Your task to perform on an android device: Search for the best rated mechanical keyboard on Amazon. Image 0: 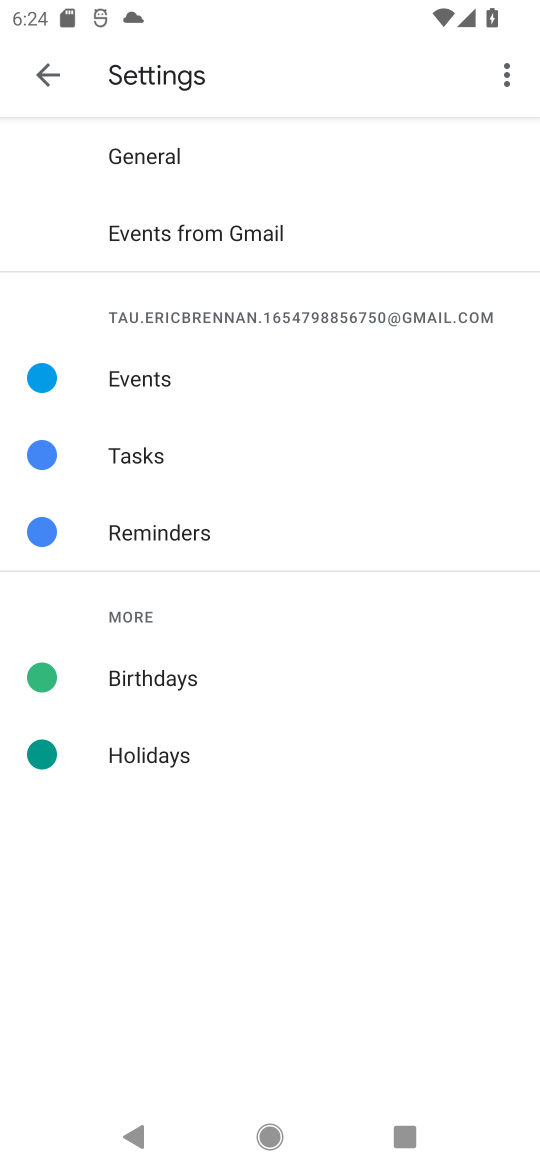
Step 0: press home button
Your task to perform on an android device: Search for the best rated mechanical keyboard on Amazon. Image 1: 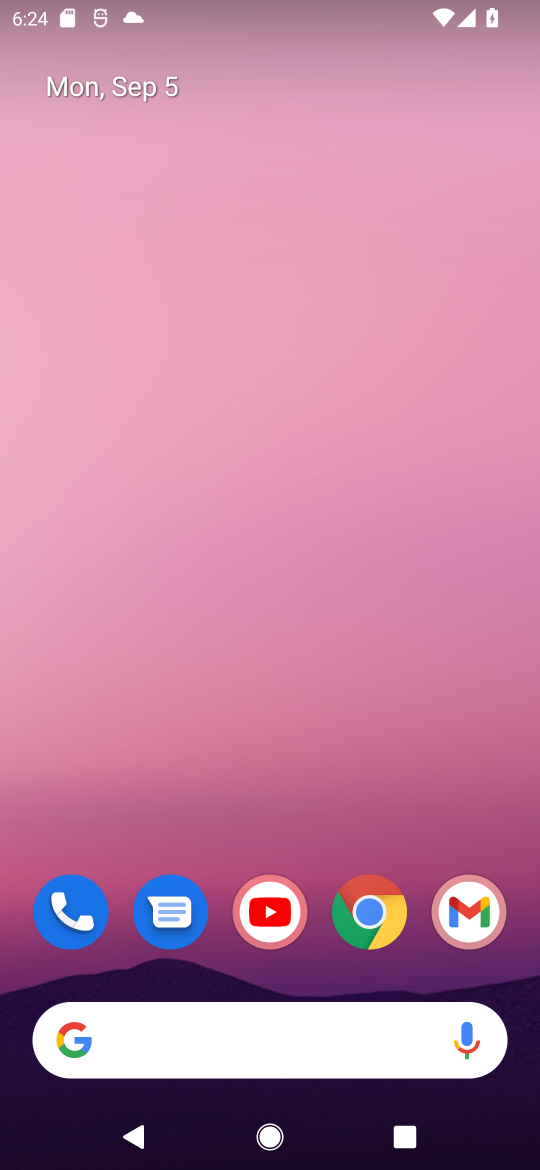
Step 1: click (363, 913)
Your task to perform on an android device: Search for the best rated mechanical keyboard on Amazon. Image 2: 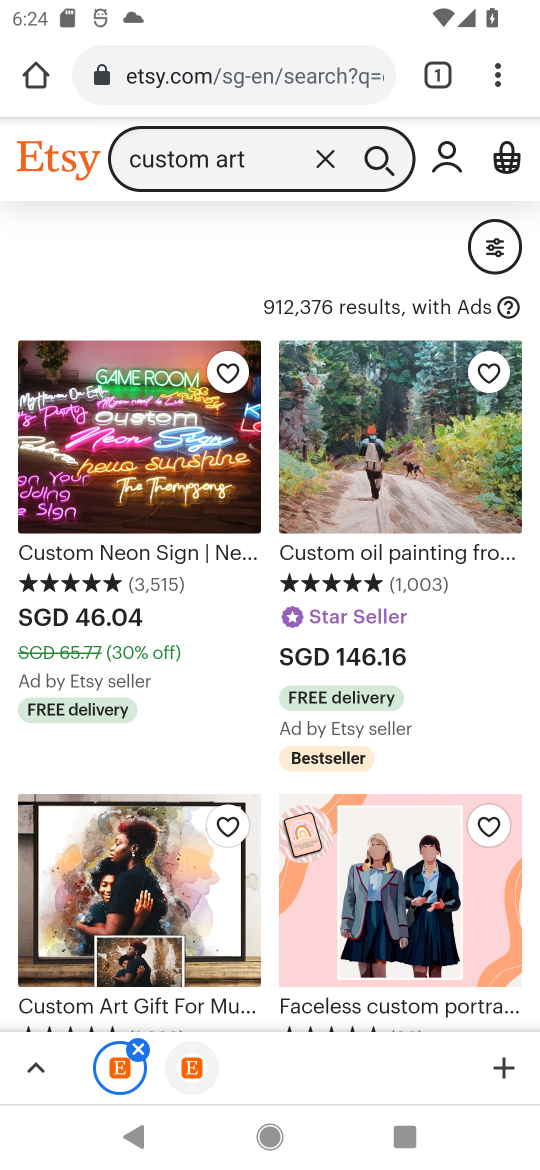
Step 2: click (241, 83)
Your task to perform on an android device: Search for the best rated mechanical keyboard on Amazon. Image 3: 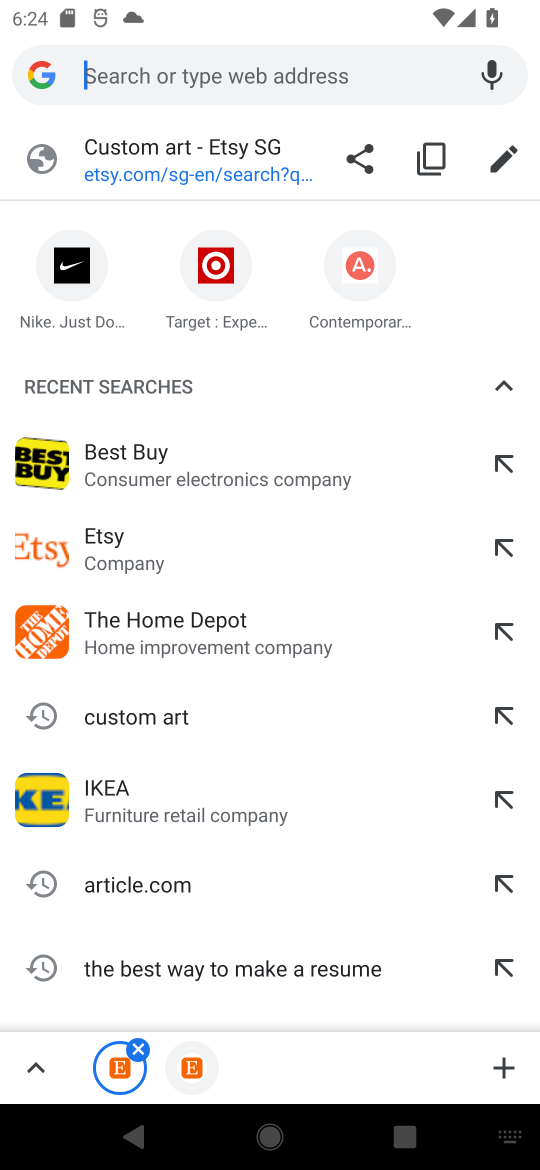
Step 3: type "Amazon"
Your task to perform on an android device: Search for the best rated mechanical keyboard on Amazon. Image 4: 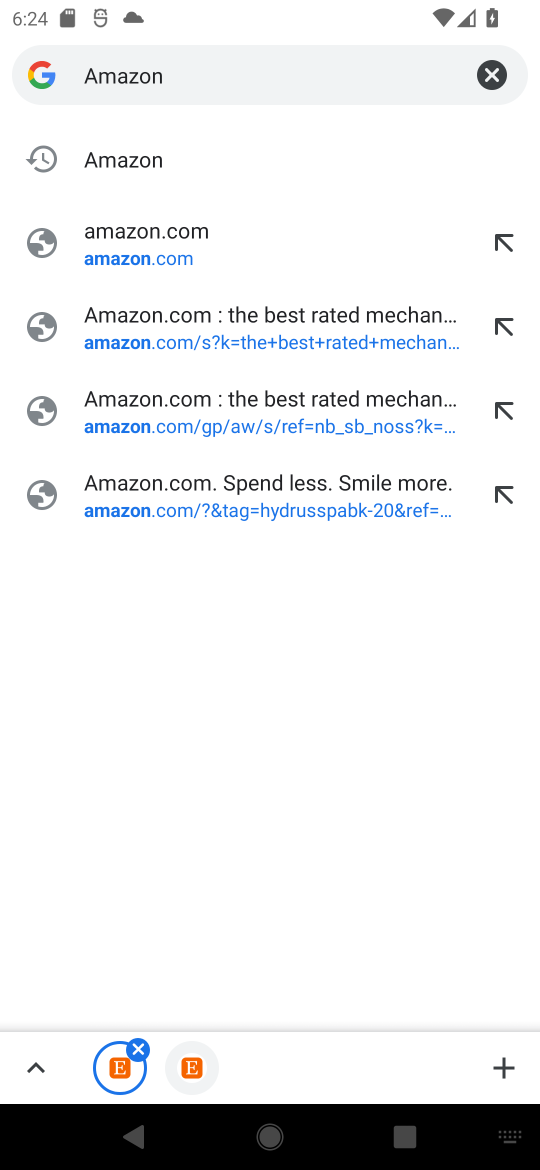
Step 4: click (219, 228)
Your task to perform on an android device: Search for the best rated mechanical keyboard on Amazon. Image 5: 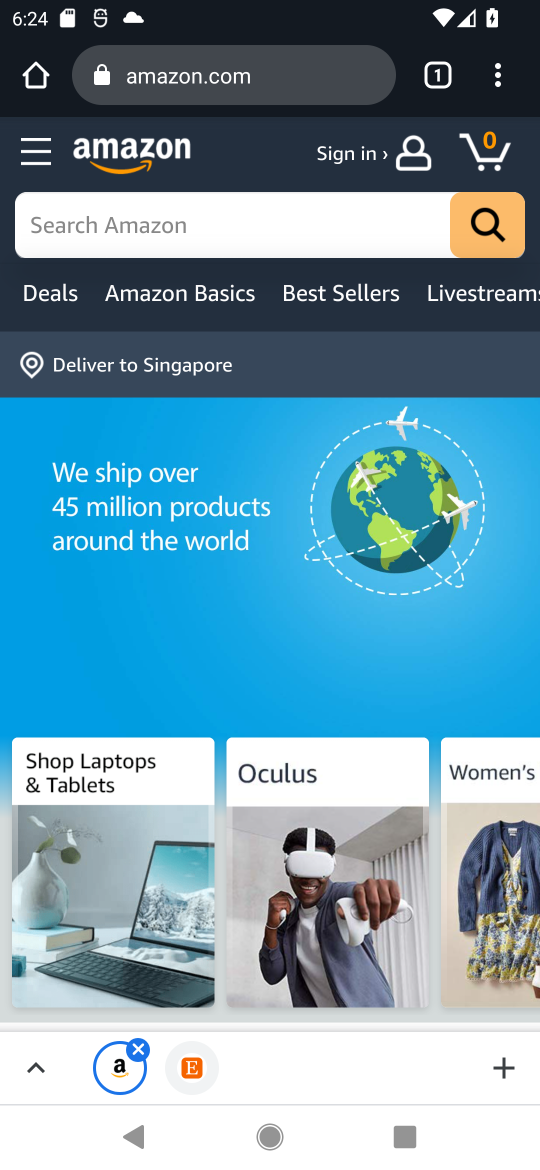
Step 5: click (211, 208)
Your task to perform on an android device: Search for the best rated mechanical keyboard on Amazon. Image 6: 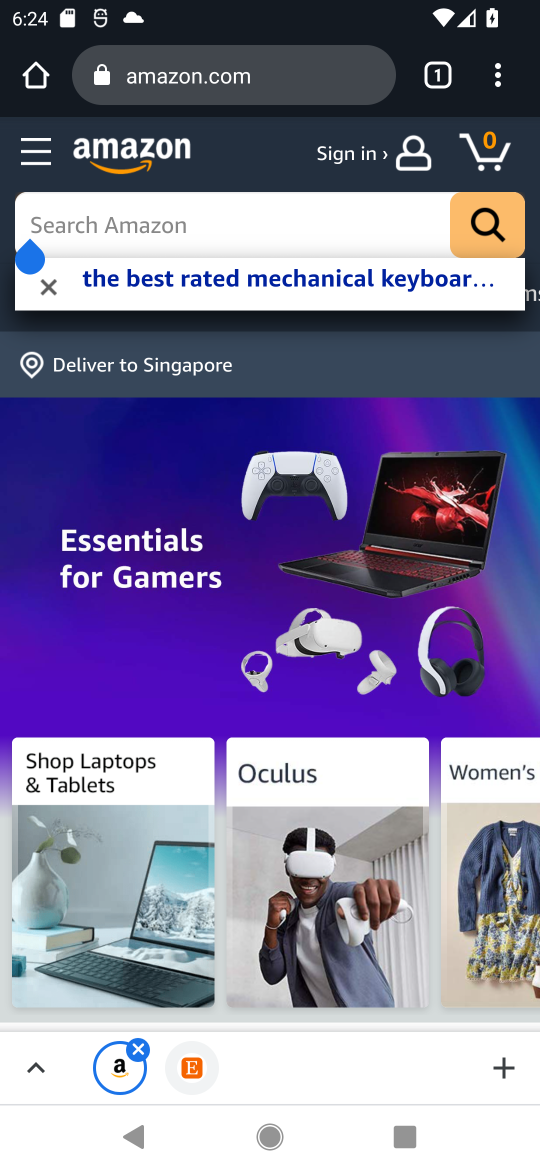
Step 6: click (407, 284)
Your task to perform on an android device: Search for the best rated mechanical keyboard on Amazon. Image 7: 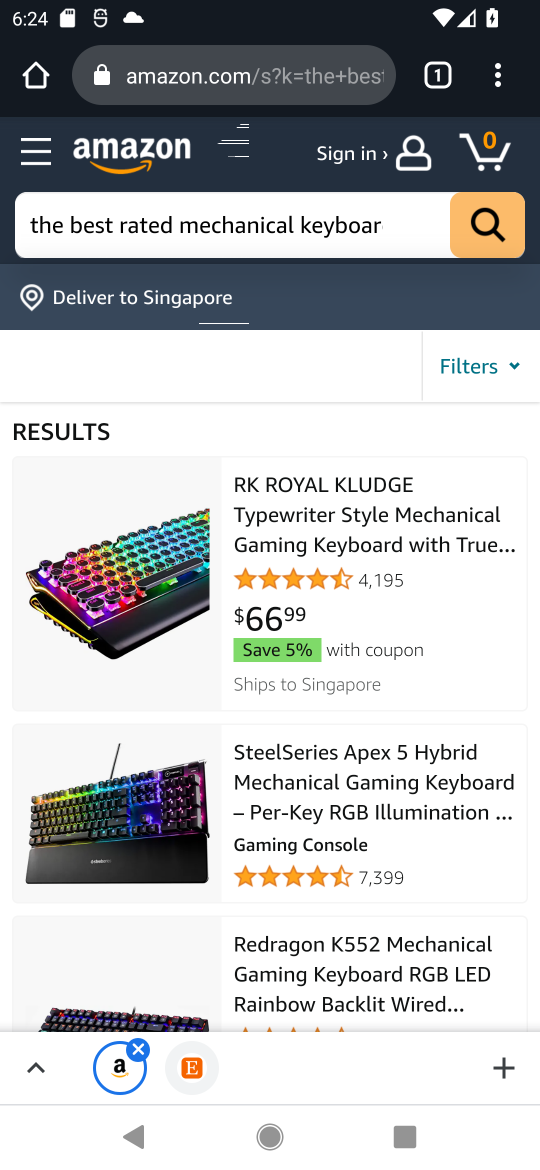
Step 7: task complete